Your task to perform on an android device: Clear the shopping cart on bestbuy. Image 0: 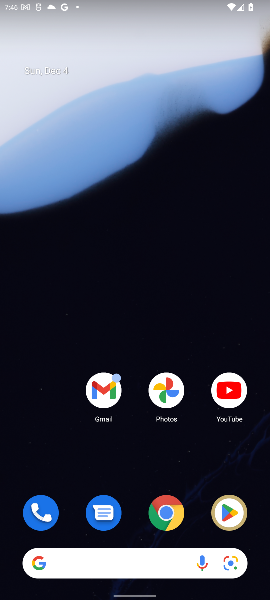
Step 0: click (163, 514)
Your task to perform on an android device: Clear the shopping cart on bestbuy. Image 1: 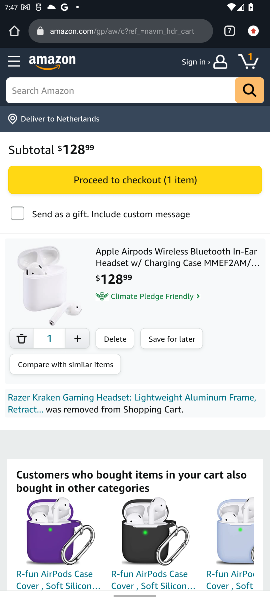
Step 1: click (233, 31)
Your task to perform on an android device: Clear the shopping cart on bestbuy. Image 2: 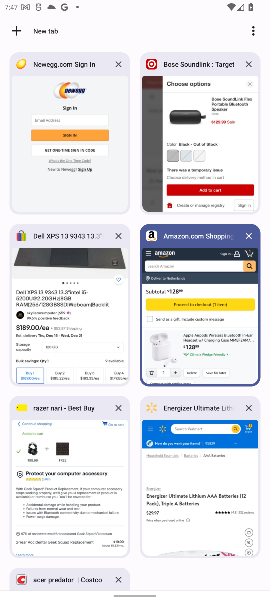
Step 2: click (20, 498)
Your task to perform on an android device: Clear the shopping cart on bestbuy. Image 3: 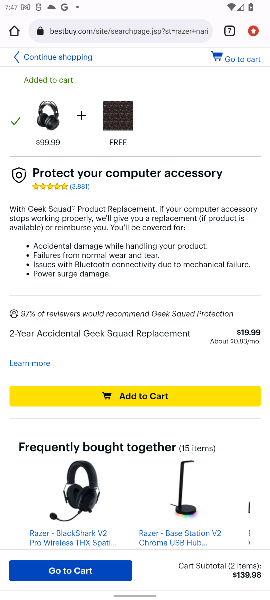
Step 3: click (234, 56)
Your task to perform on an android device: Clear the shopping cart on bestbuy. Image 4: 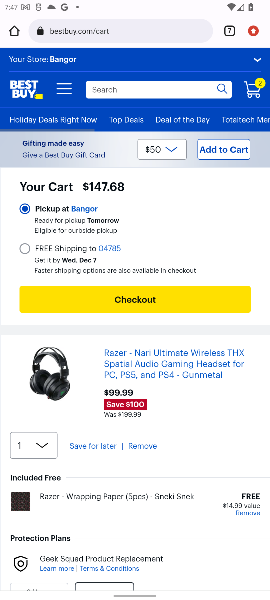
Step 4: click (142, 446)
Your task to perform on an android device: Clear the shopping cart on bestbuy. Image 5: 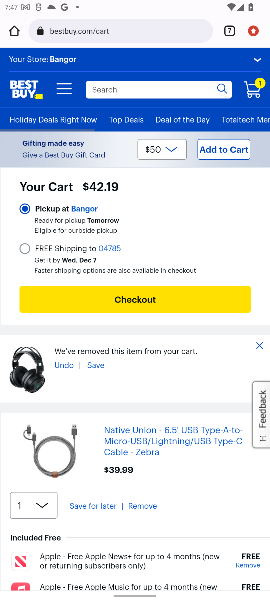
Step 5: click (146, 509)
Your task to perform on an android device: Clear the shopping cart on bestbuy. Image 6: 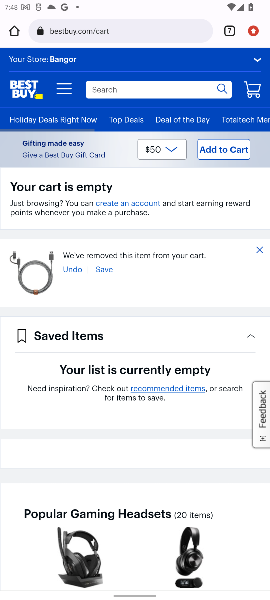
Step 6: task complete